Your task to perform on an android device: turn on notifications settings in the gmail app Image 0: 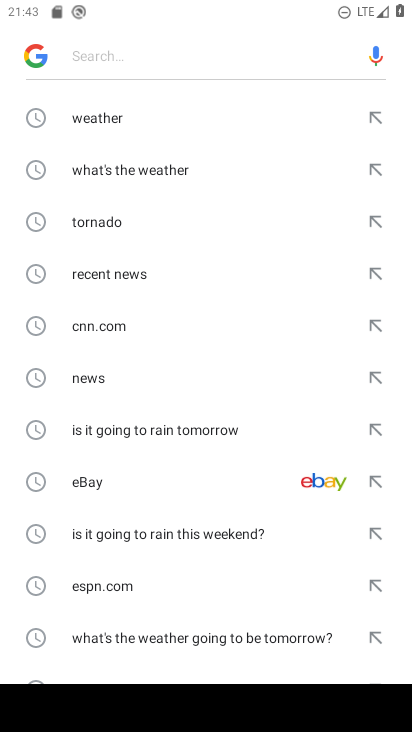
Step 0: press home button
Your task to perform on an android device: turn on notifications settings in the gmail app Image 1: 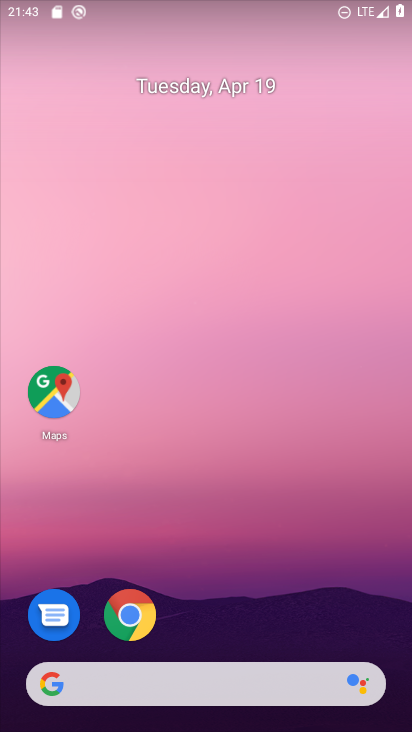
Step 1: drag from (234, 637) to (237, 45)
Your task to perform on an android device: turn on notifications settings in the gmail app Image 2: 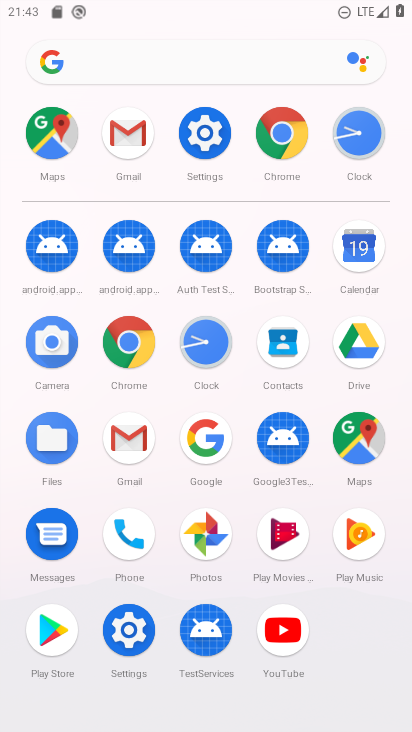
Step 2: click (132, 143)
Your task to perform on an android device: turn on notifications settings in the gmail app Image 3: 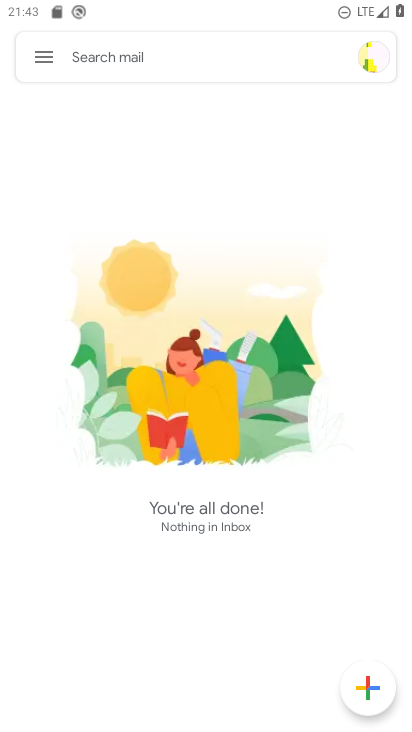
Step 3: click (49, 57)
Your task to perform on an android device: turn on notifications settings in the gmail app Image 4: 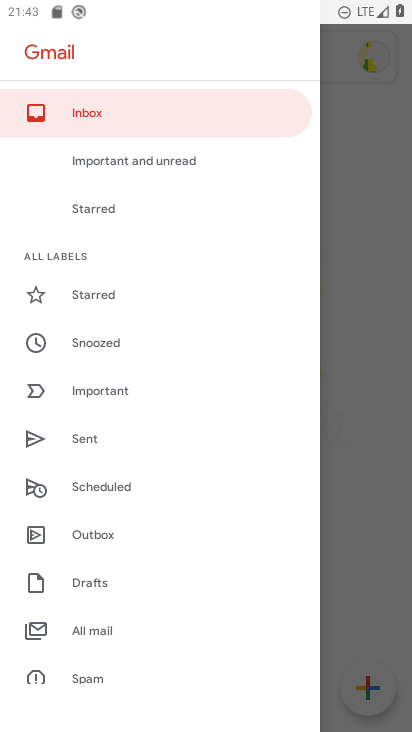
Step 4: drag from (231, 672) to (169, 114)
Your task to perform on an android device: turn on notifications settings in the gmail app Image 5: 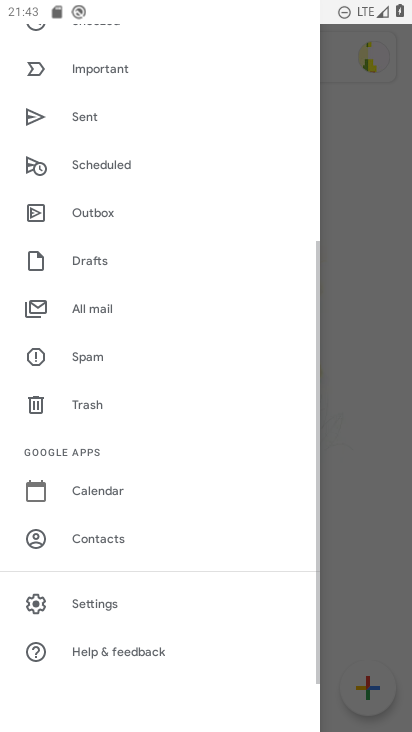
Step 5: click (147, 613)
Your task to perform on an android device: turn on notifications settings in the gmail app Image 6: 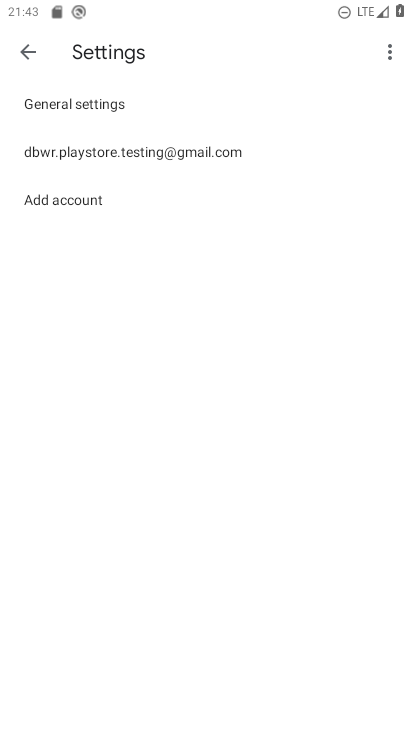
Step 6: click (223, 147)
Your task to perform on an android device: turn on notifications settings in the gmail app Image 7: 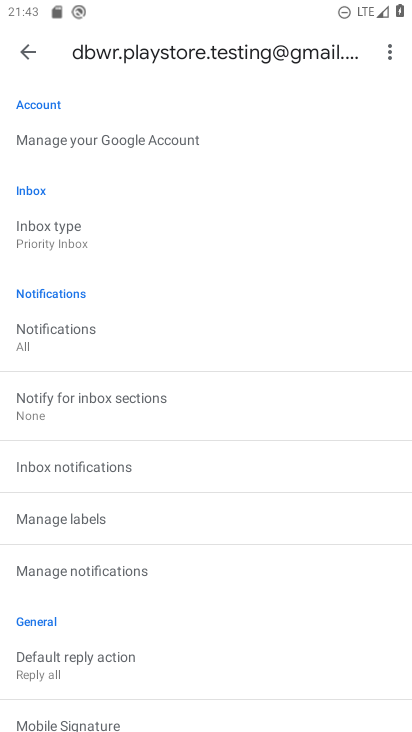
Step 7: click (157, 334)
Your task to perform on an android device: turn on notifications settings in the gmail app Image 8: 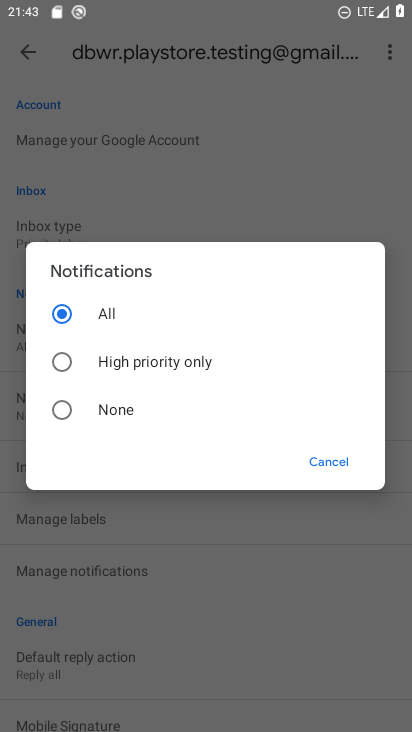
Step 8: task complete